Your task to perform on an android device: search for starred emails in the gmail app Image 0: 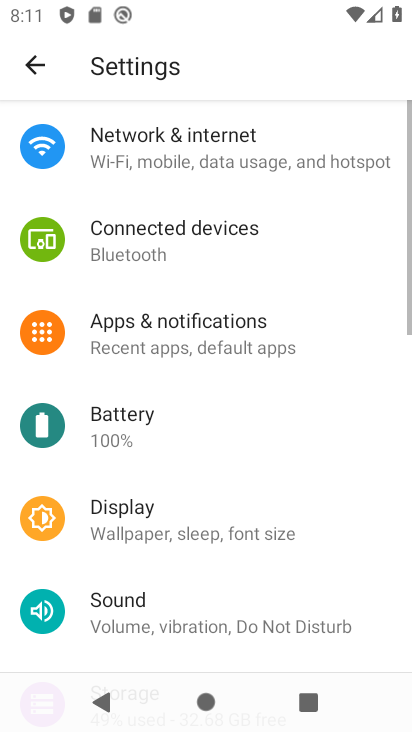
Step 0: press home button
Your task to perform on an android device: search for starred emails in the gmail app Image 1: 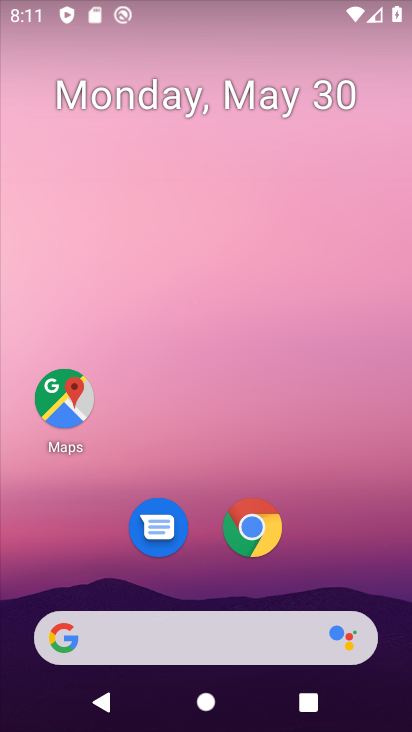
Step 1: drag from (205, 601) to (202, 306)
Your task to perform on an android device: search for starred emails in the gmail app Image 2: 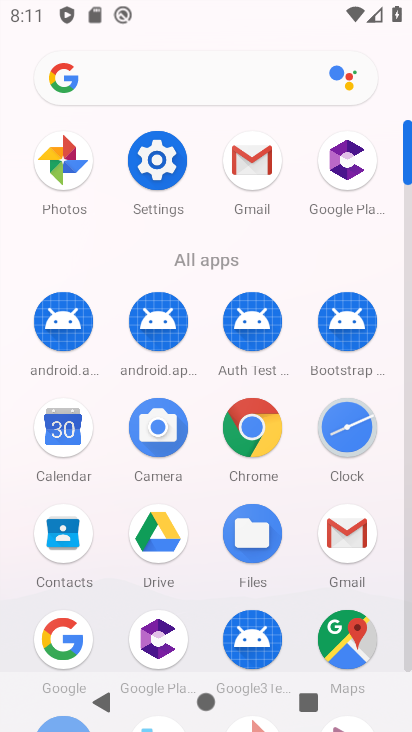
Step 2: click (342, 524)
Your task to perform on an android device: search for starred emails in the gmail app Image 3: 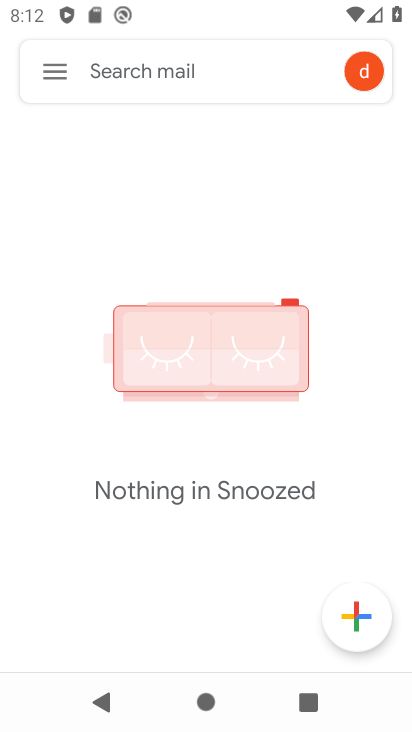
Step 3: click (51, 57)
Your task to perform on an android device: search for starred emails in the gmail app Image 4: 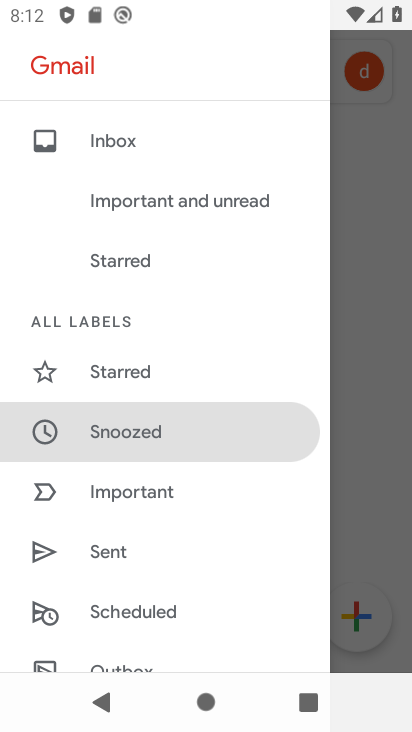
Step 4: click (128, 368)
Your task to perform on an android device: search for starred emails in the gmail app Image 5: 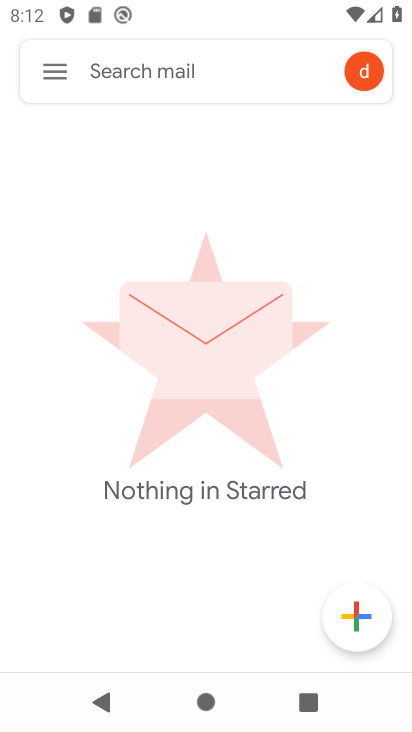
Step 5: task complete